Your task to perform on an android device: open app "Walmart Shopping & Grocery" (install if not already installed) Image 0: 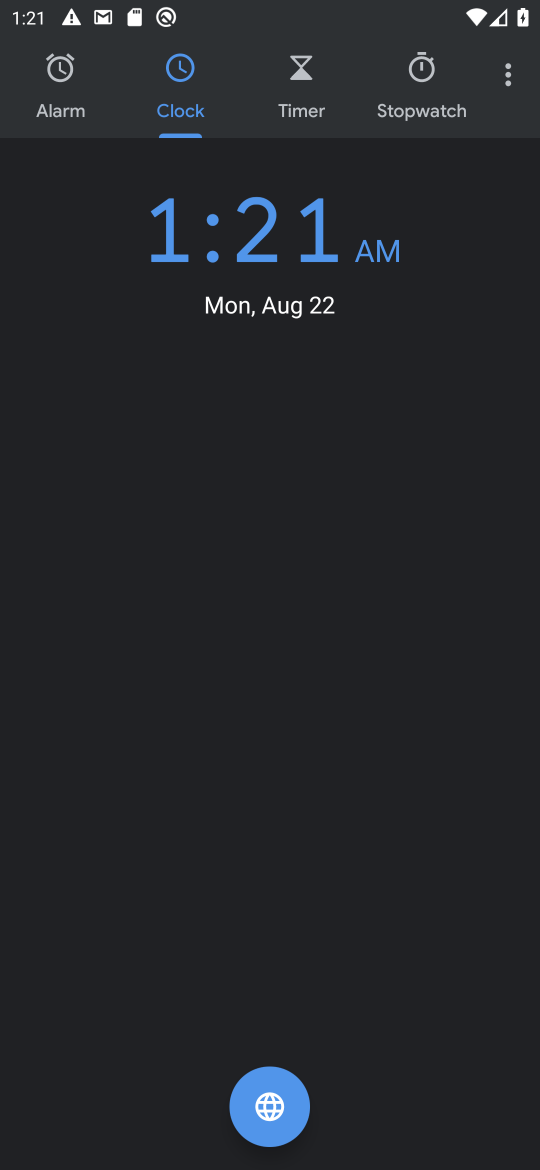
Step 0: press home button
Your task to perform on an android device: open app "Walmart Shopping & Grocery" (install if not already installed) Image 1: 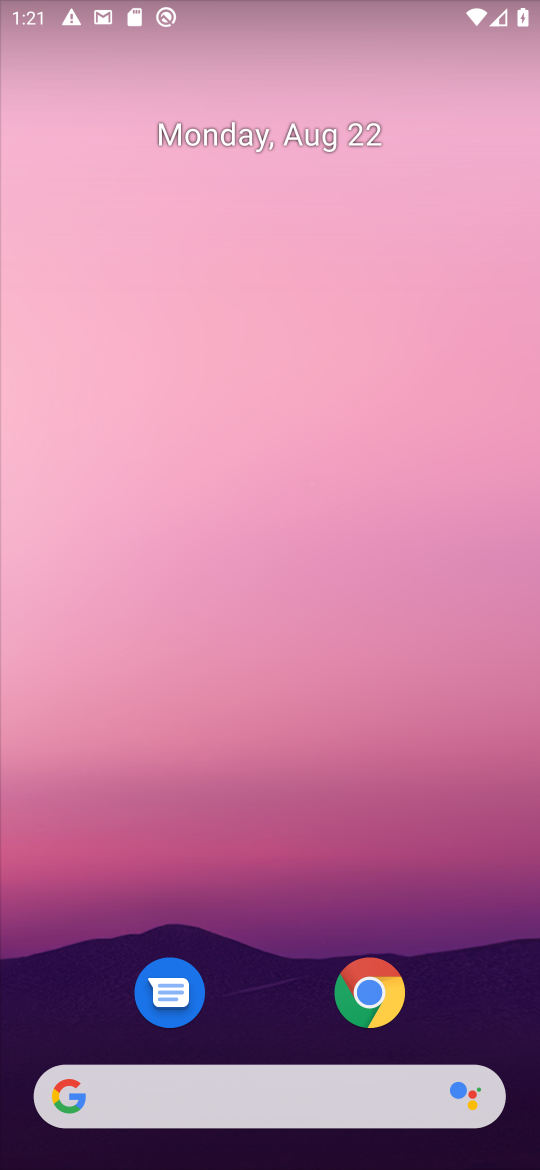
Step 1: drag from (291, 548) to (297, 469)
Your task to perform on an android device: open app "Walmart Shopping & Grocery" (install if not already installed) Image 2: 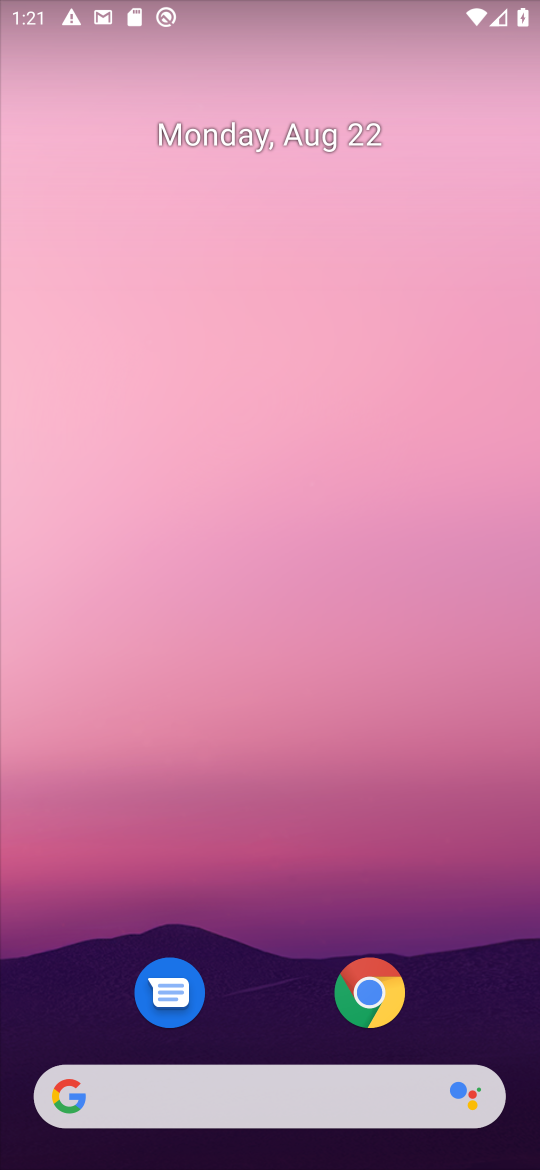
Step 2: drag from (279, 875) to (325, 157)
Your task to perform on an android device: open app "Walmart Shopping & Grocery" (install if not already installed) Image 3: 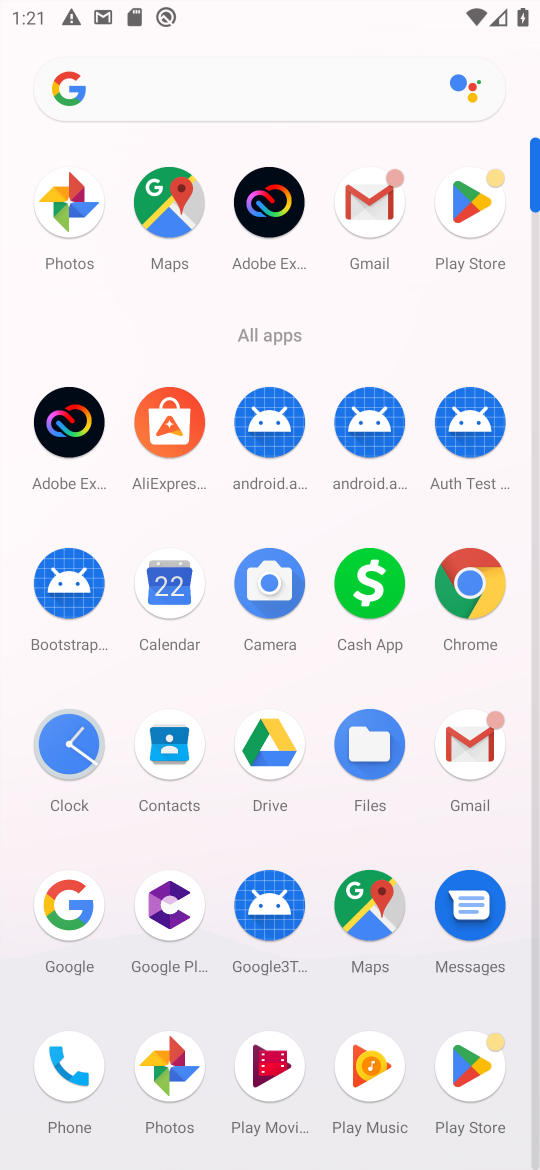
Step 3: click (468, 199)
Your task to perform on an android device: open app "Walmart Shopping & Grocery" (install if not already installed) Image 4: 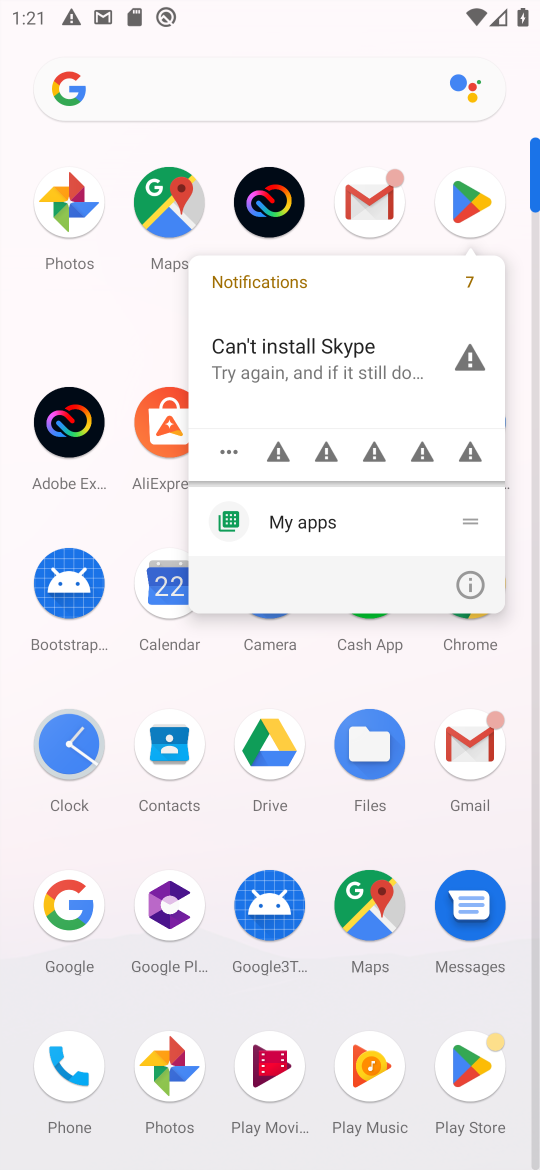
Step 4: click (452, 206)
Your task to perform on an android device: open app "Walmart Shopping & Grocery" (install if not already installed) Image 5: 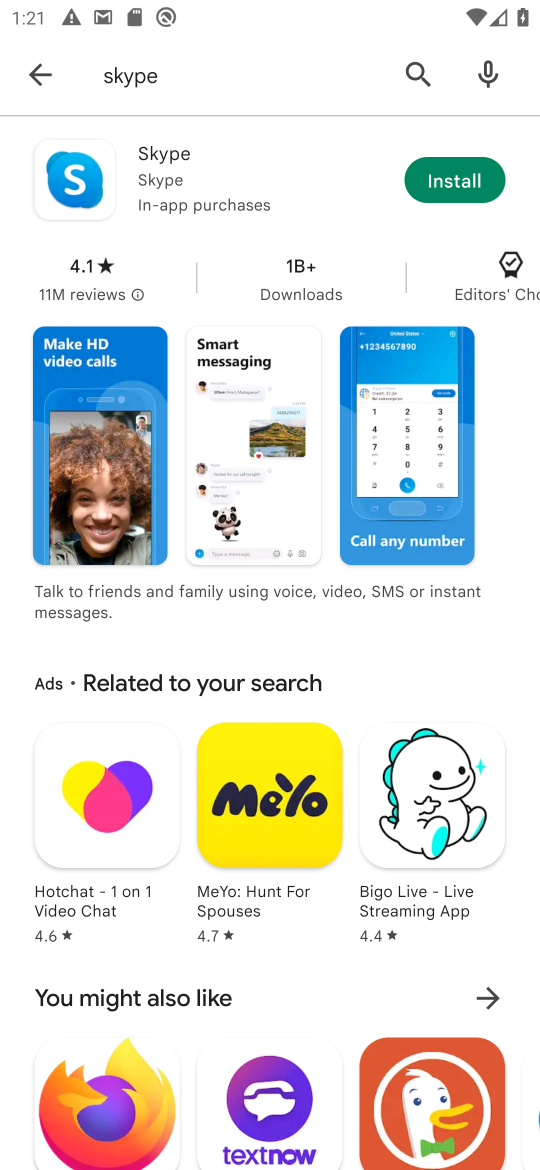
Step 5: click (416, 74)
Your task to perform on an android device: open app "Walmart Shopping & Grocery" (install if not already installed) Image 6: 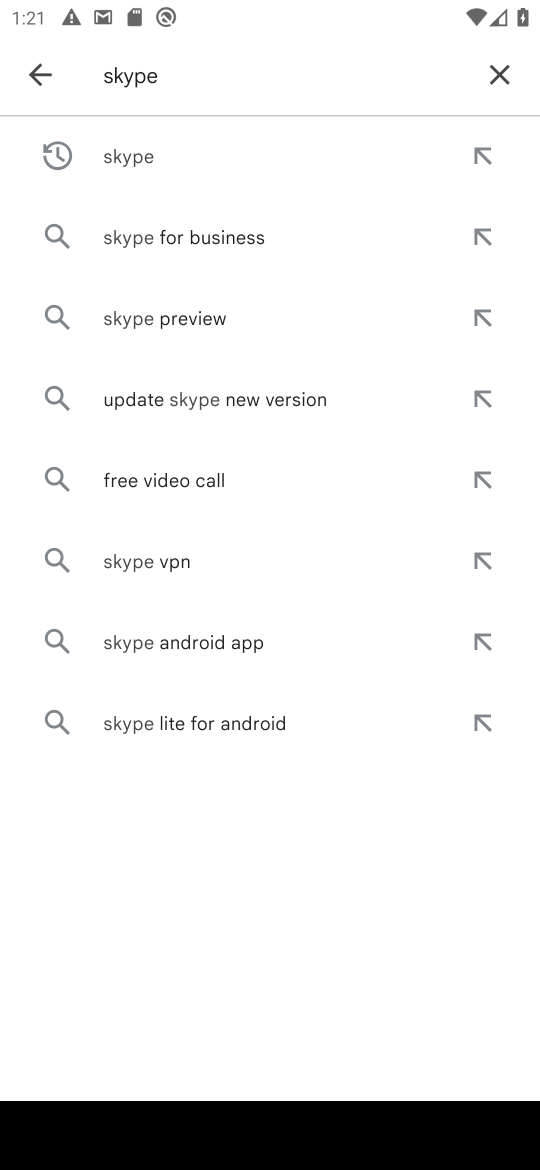
Step 6: click (491, 69)
Your task to perform on an android device: open app "Walmart Shopping & Grocery" (install if not already installed) Image 7: 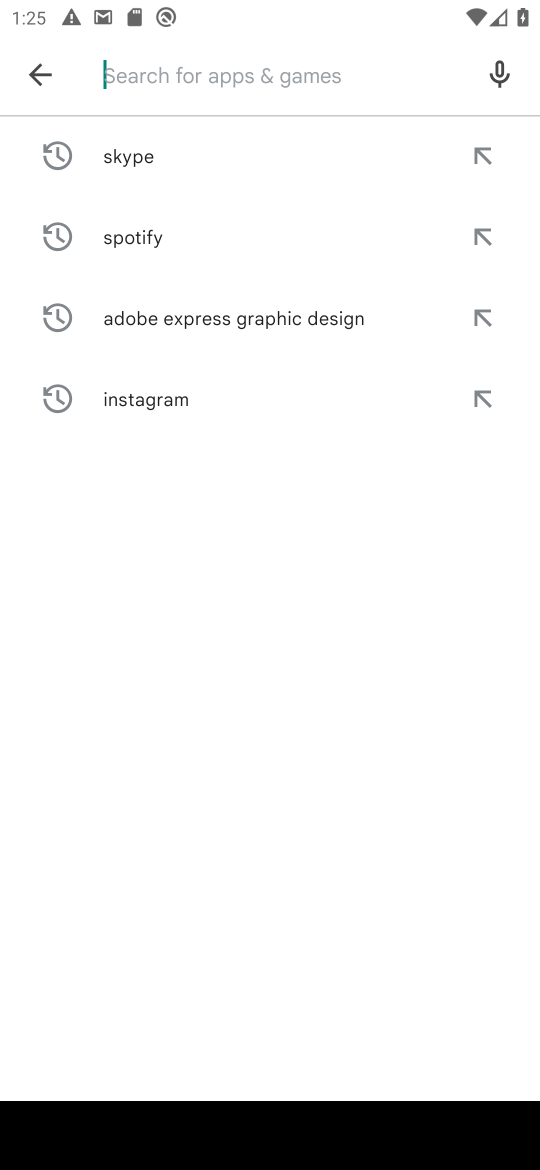
Step 7: type "Walmart Shopping & Grocery"
Your task to perform on an android device: open app "Walmart Shopping & Grocery" (install if not already installed) Image 8: 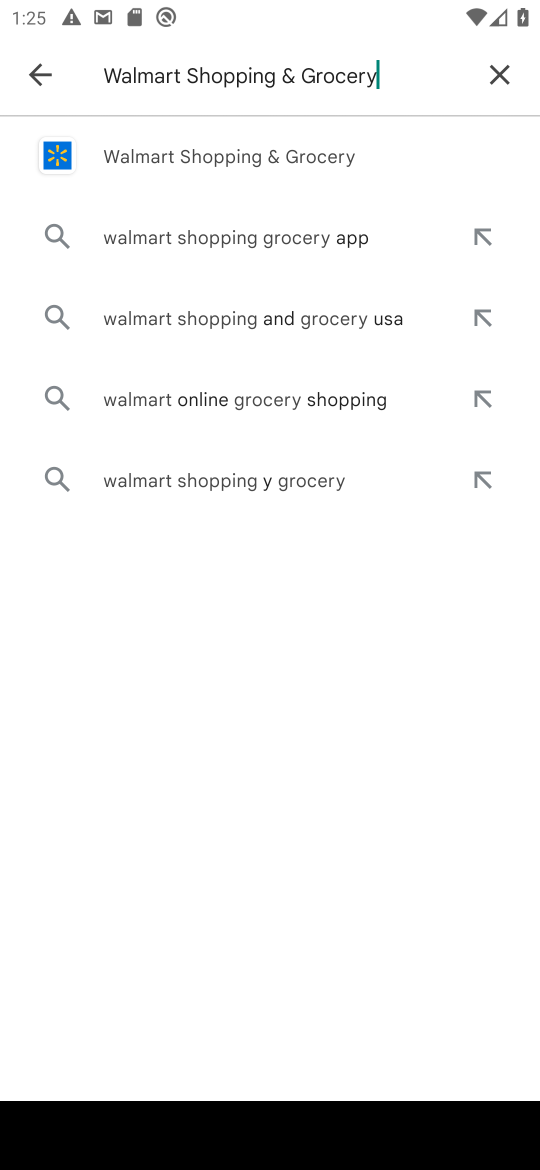
Step 8: click (144, 170)
Your task to perform on an android device: open app "Walmart Shopping & Grocery" (install if not already installed) Image 9: 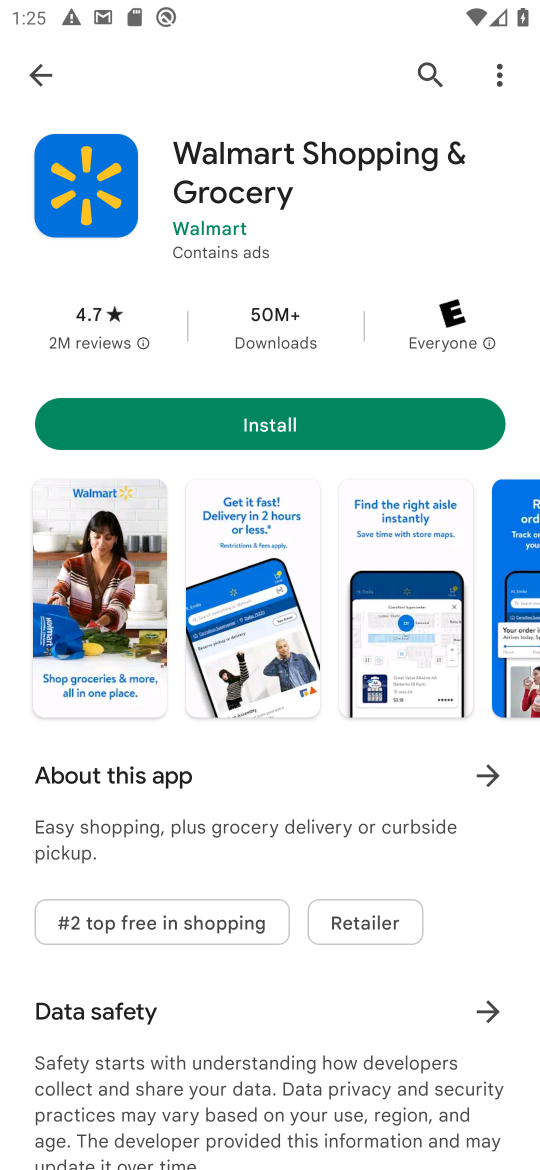
Step 9: click (268, 428)
Your task to perform on an android device: open app "Walmart Shopping & Grocery" (install if not already installed) Image 10: 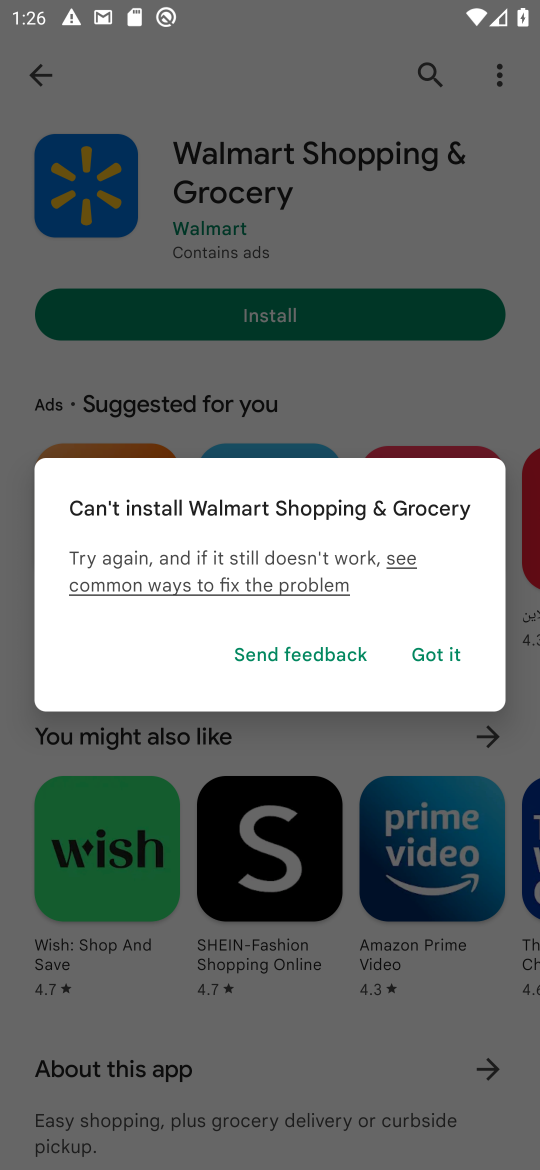
Step 10: task complete